Your task to perform on an android device: change the clock display to analog Image 0: 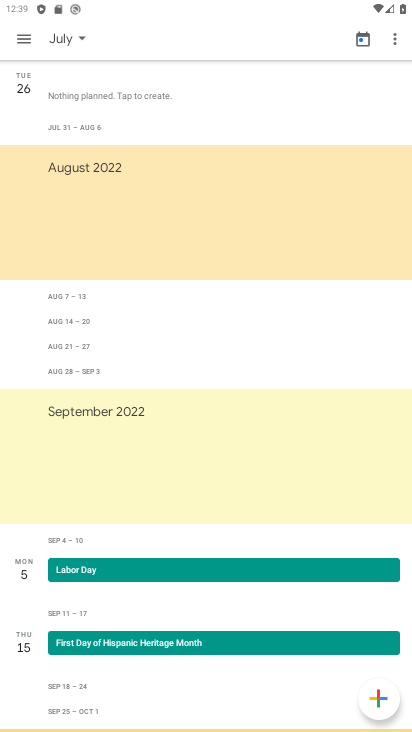
Step 0: press home button
Your task to perform on an android device: change the clock display to analog Image 1: 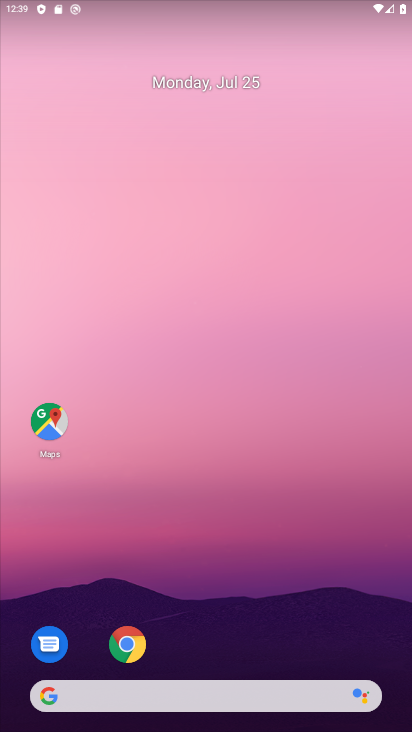
Step 1: drag from (231, 728) to (231, 425)
Your task to perform on an android device: change the clock display to analog Image 2: 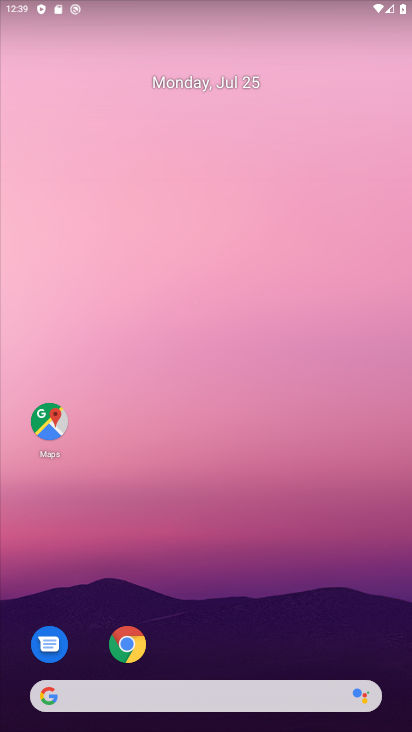
Step 2: click (255, 727)
Your task to perform on an android device: change the clock display to analog Image 3: 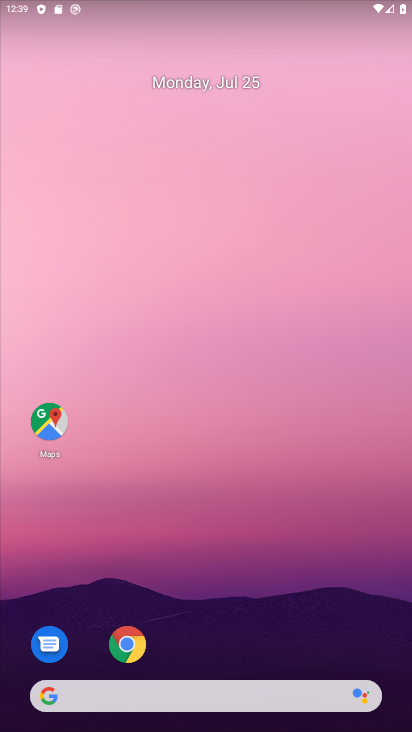
Step 3: drag from (258, 302) to (258, 135)
Your task to perform on an android device: change the clock display to analog Image 4: 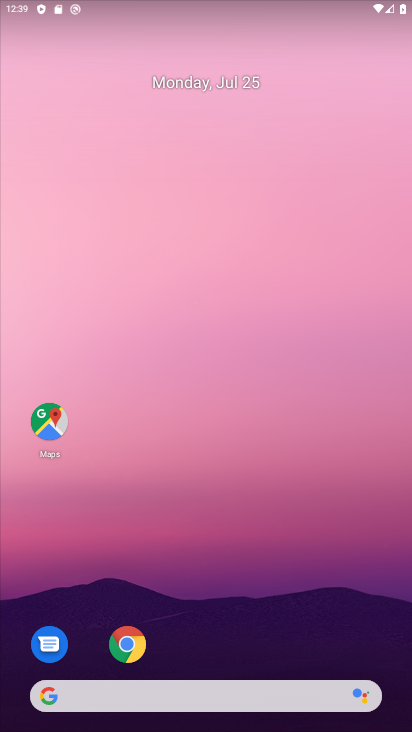
Step 4: click (248, 0)
Your task to perform on an android device: change the clock display to analog Image 5: 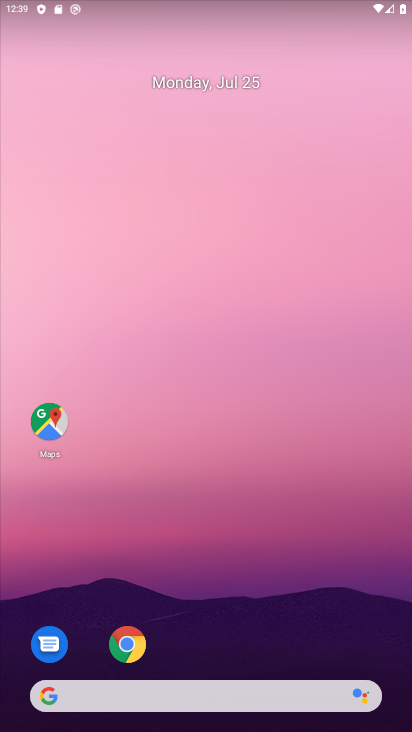
Step 5: click (242, 730)
Your task to perform on an android device: change the clock display to analog Image 6: 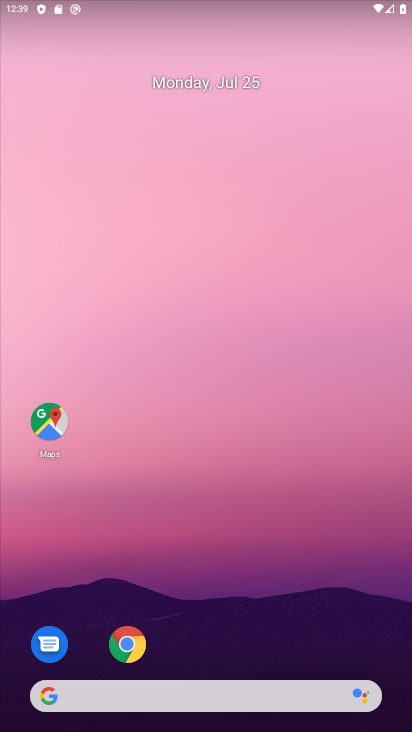
Step 6: drag from (242, 170) to (242, 63)
Your task to perform on an android device: change the clock display to analog Image 7: 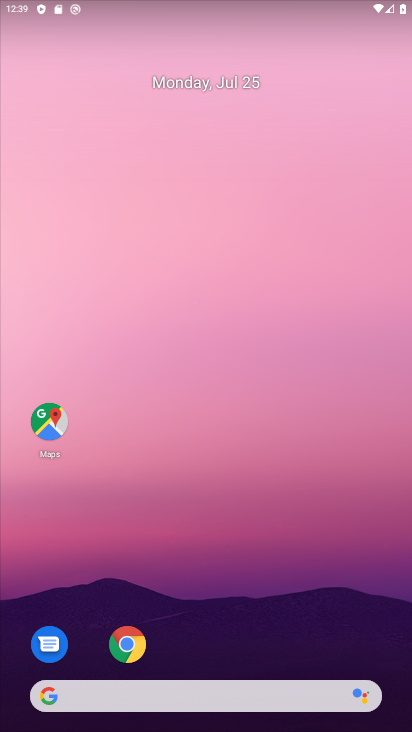
Step 7: click (270, 67)
Your task to perform on an android device: change the clock display to analog Image 8: 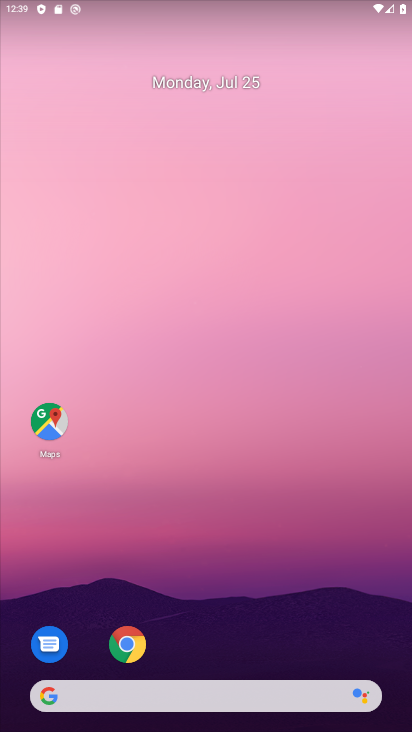
Step 8: drag from (250, 543) to (250, 138)
Your task to perform on an android device: change the clock display to analog Image 9: 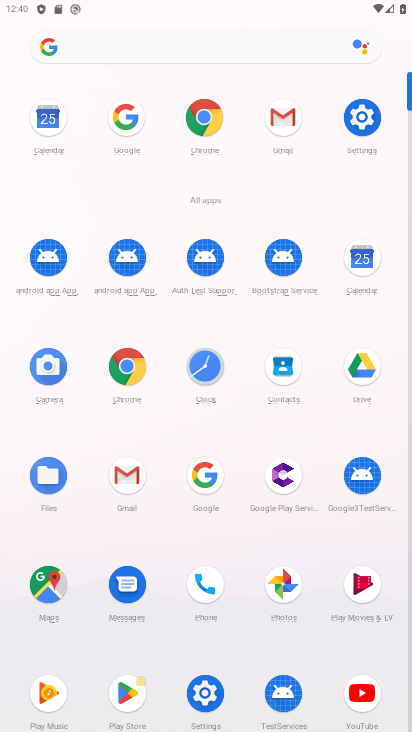
Step 9: click (215, 371)
Your task to perform on an android device: change the clock display to analog Image 10: 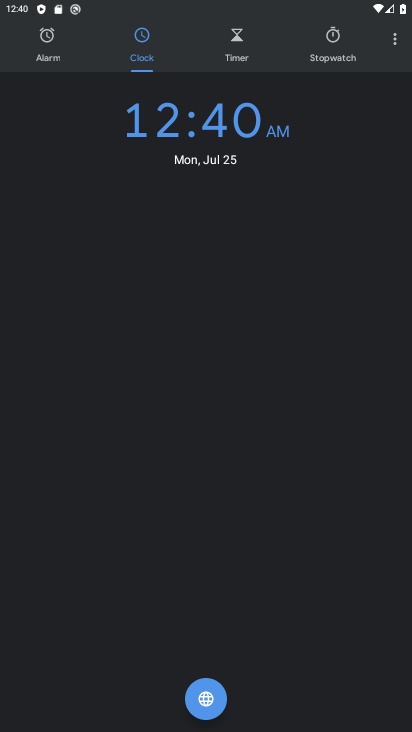
Step 10: click (396, 43)
Your task to perform on an android device: change the clock display to analog Image 11: 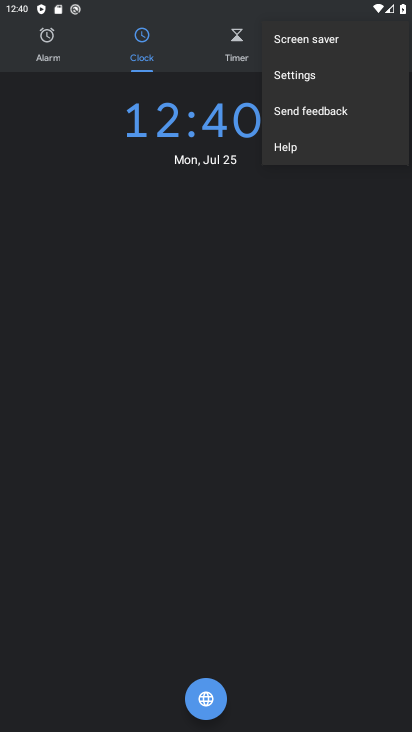
Step 11: click (304, 77)
Your task to perform on an android device: change the clock display to analog Image 12: 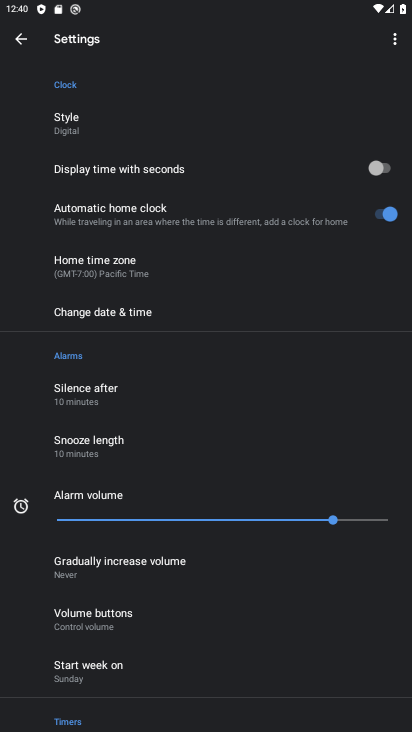
Step 12: click (66, 122)
Your task to perform on an android device: change the clock display to analog Image 13: 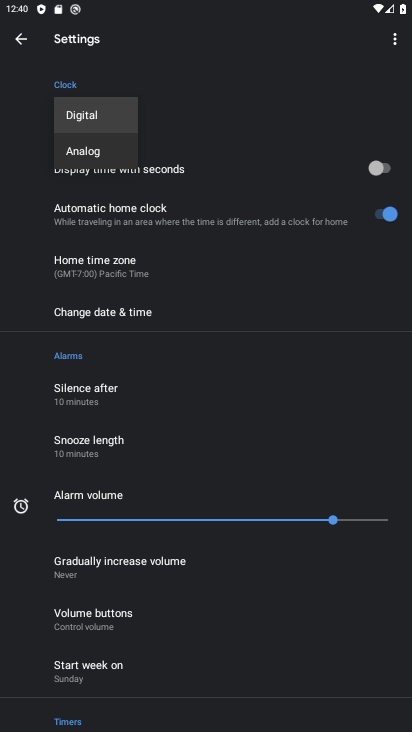
Step 13: click (78, 153)
Your task to perform on an android device: change the clock display to analog Image 14: 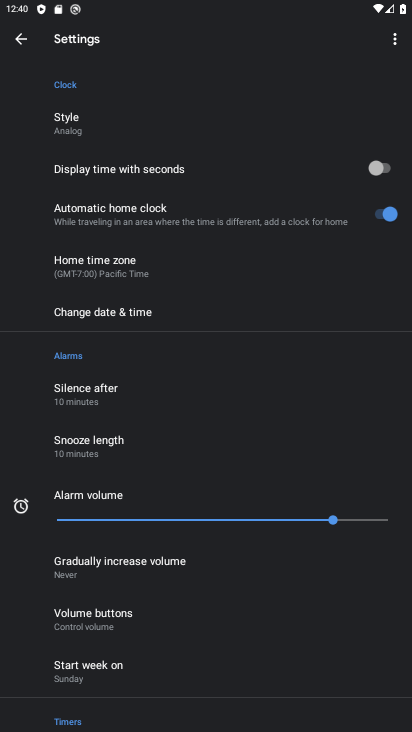
Step 14: task complete